Your task to perform on an android device: Go to CNN.com Image 0: 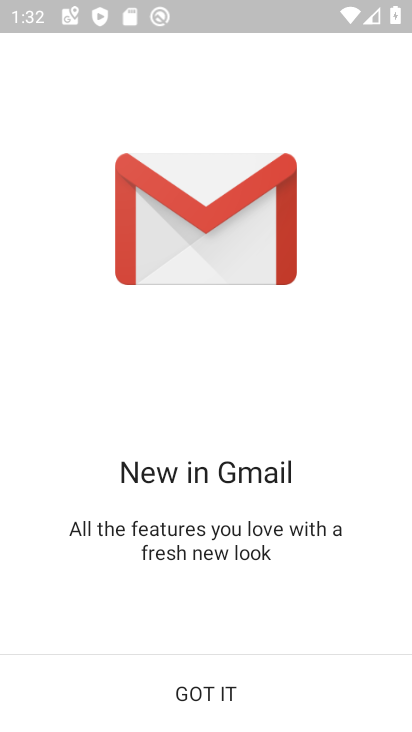
Step 0: press home button
Your task to perform on an android device: Go to CNN.com Image 1: 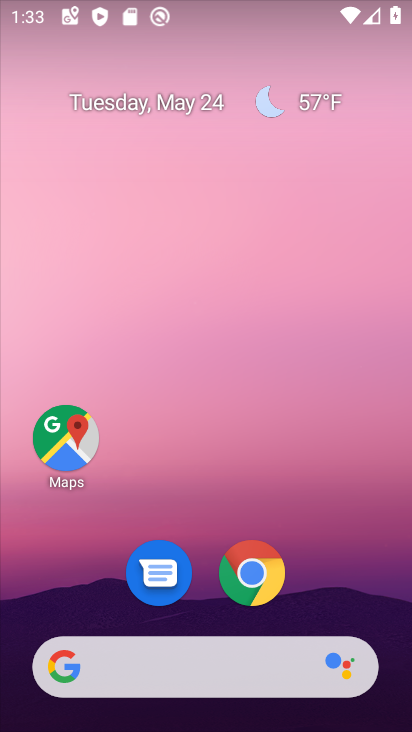
Step 1: click (256, 565)
Your task to perform on an android device: Go to CNN.com Image 2: 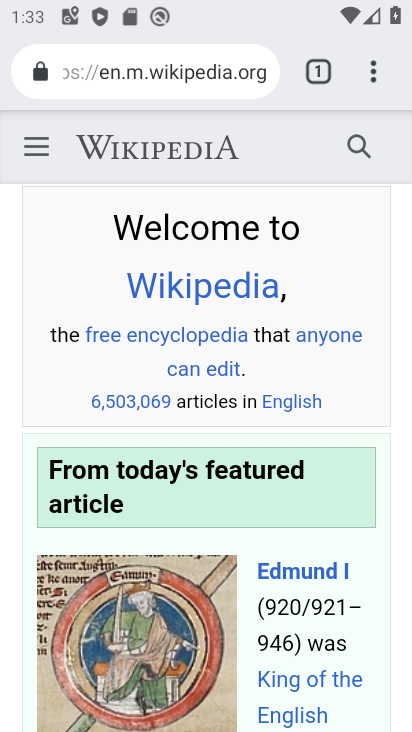
Step 2: click (190, 85)
Your task to perform on an android device: Go to CNN.com Image 3: 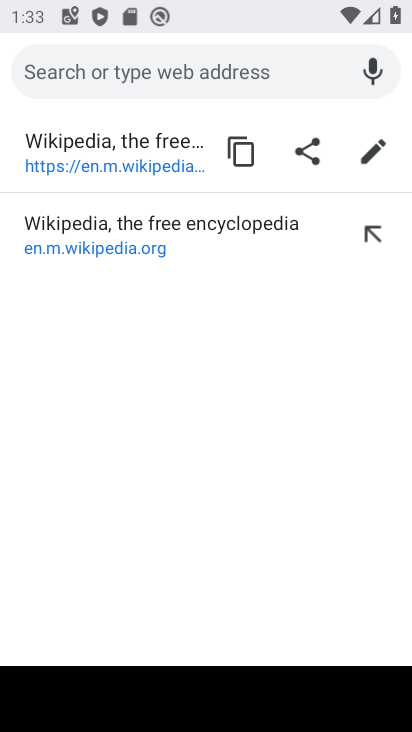
Step 3: type "cnn.com"
Your task to perform on an android device: Go to CNN.com Image 4: 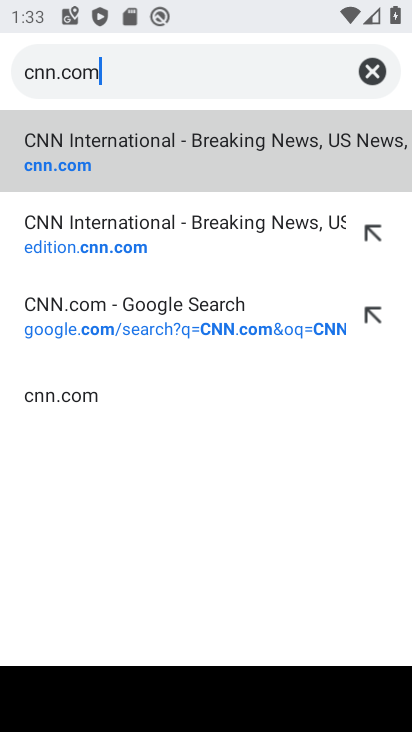
Step 4: click (94, 150)
Your task to perform on an android device: Go to CNN.com Image 5: 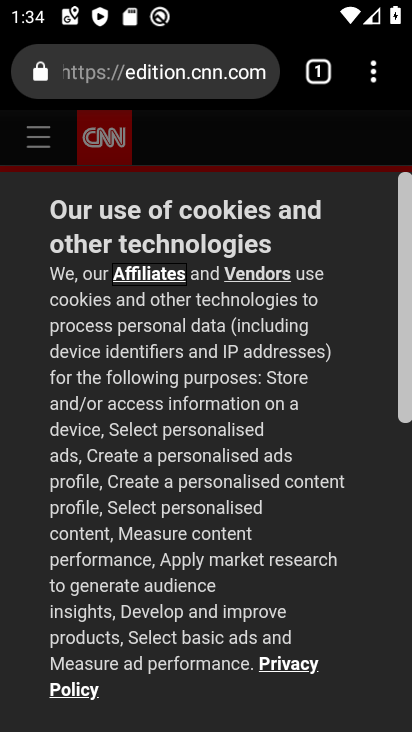
Step 5: task complete